Your task to perform on an android device: change the clock display to show seconds Image 0: 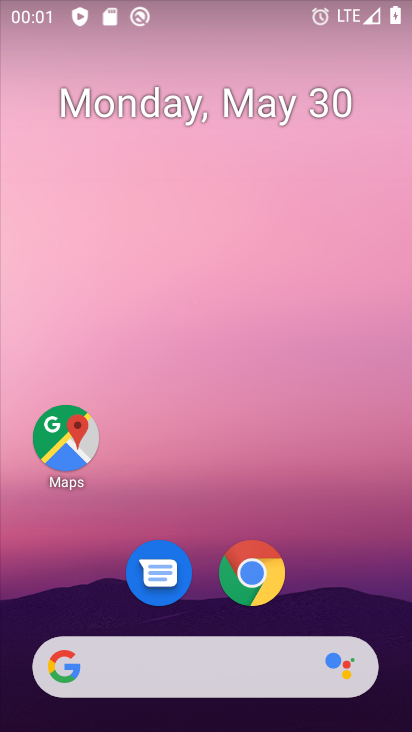
Step 0: drag from (338, 584) to (212, 7)
Your task to perform on an android device: change the clock display to show seconds Image 1: 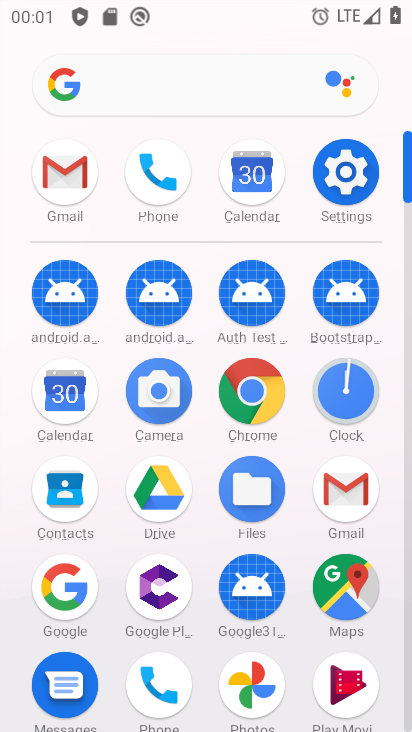
Step 1: click (355, 392)
Your task to perform on an android device: change the clock display to show seconds Image 2: 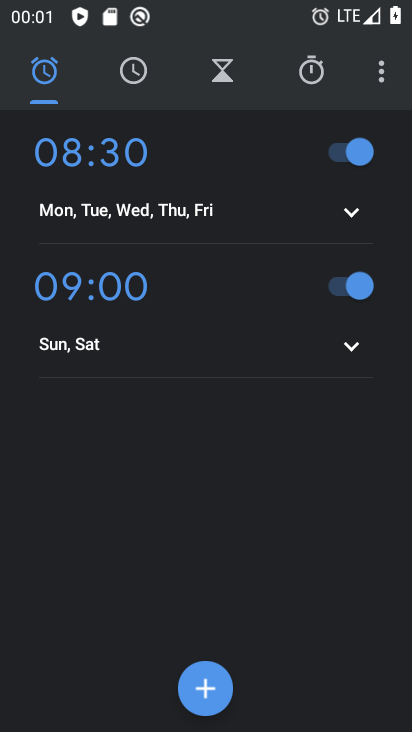
Step 2: click (373, 77)
Your task to perform on an android device: change the clock display to show seconds Image 3: 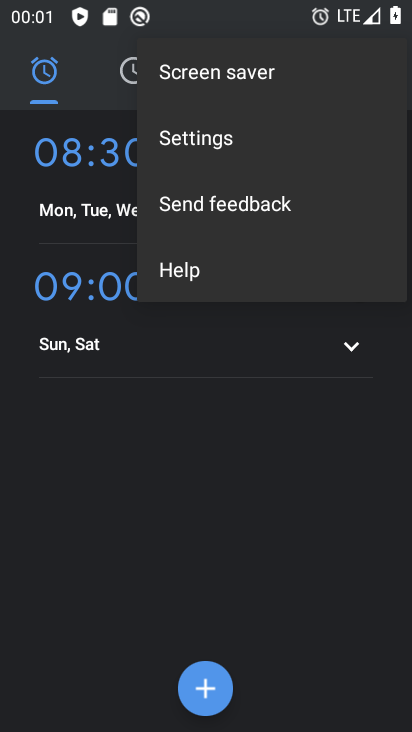
Step 3: click (280, 146)
Your task to perform on an android device: change the clock display to show seconds Image 4: 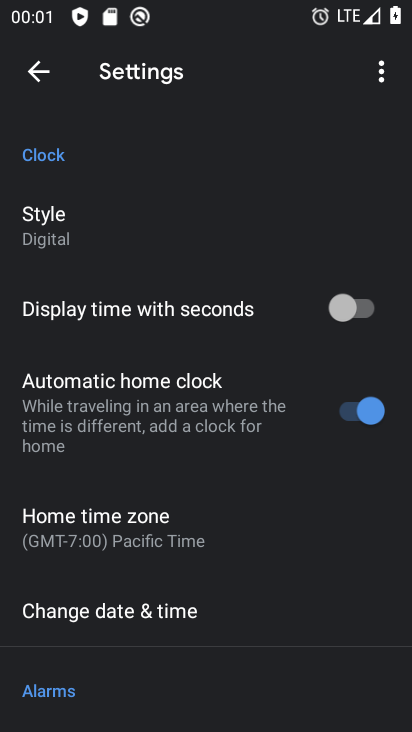
Step 4: click (343, 316)
Your task to perform on an android device: change the clock display to show seconds Image 5: 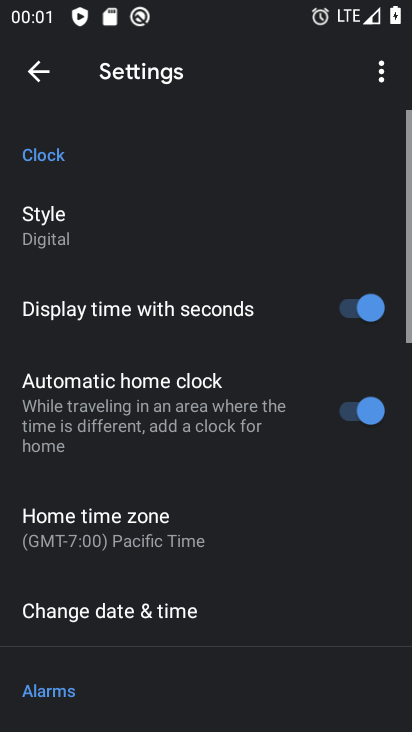
Step 5: task complete